Your task to perform on an android device: turn vacation reply on in the gmail app Image 0: 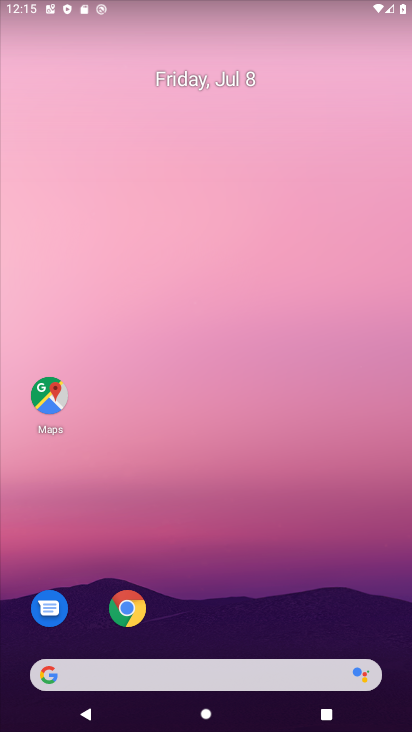
Step 0: drag from (280, 604) to (169, 59)
Your task to perform on an android device: turn vacation reply on in the gmail app Image 1: 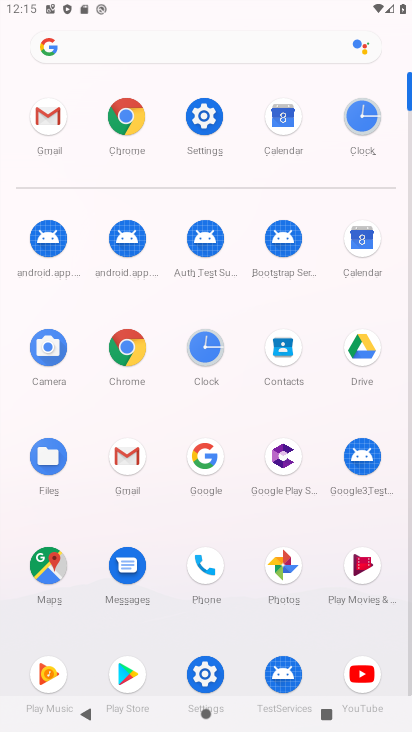
Step 1: click (40, 124)
Your task to perform on an android device: turn vacation reply on in the gmail app Image 2: 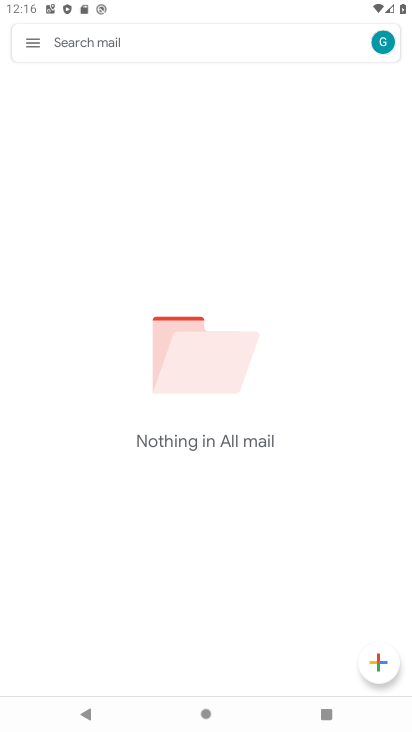
Step 2: click (40, 42)
Your task to perform on an android device: turn vacation reply on in the gmail app Image 3: 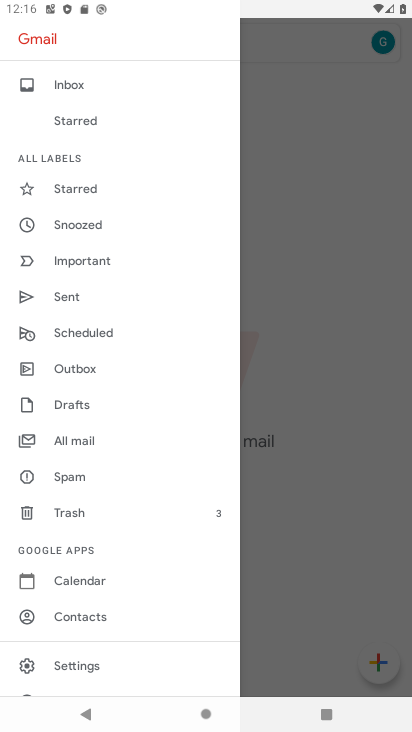
Step 3: click (80, 682)
Your task to perform on an android device: turn vacation reply on in the gmail app Image 4: 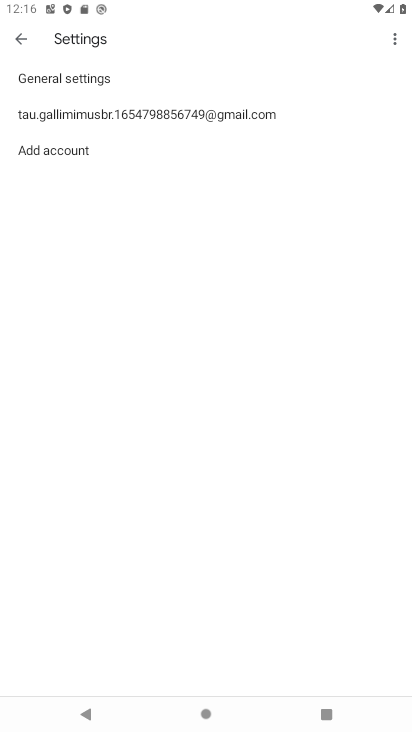
Step 4: click (146, 103)
Your task to perform on an android device: turn vacation reply on in the gmail app Image 5: 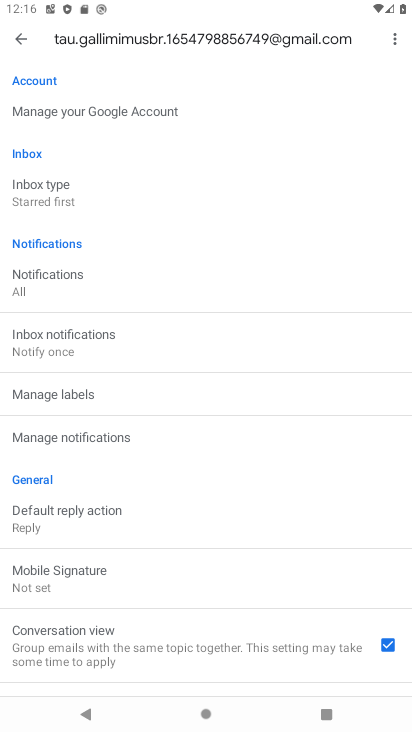
Step 5: drag from (195, 557) to (169, 234)
Your task to perform on an android device: turn vacation reply on in the gmail app Image 6: 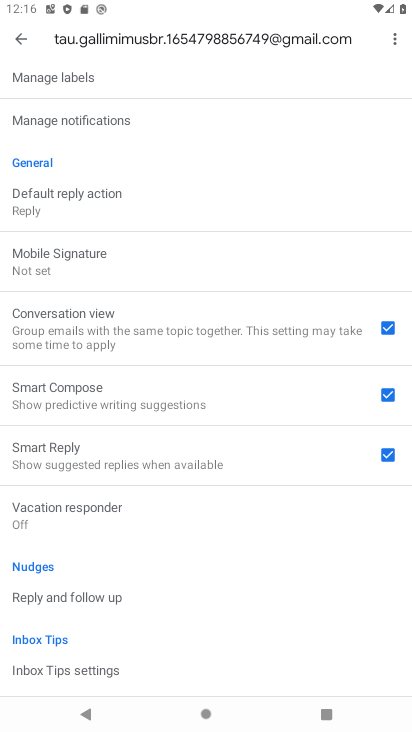
Step 6: click (98, 89)
Your task to perform on an android device: turn vacation reply on in the gmail app Image 7: 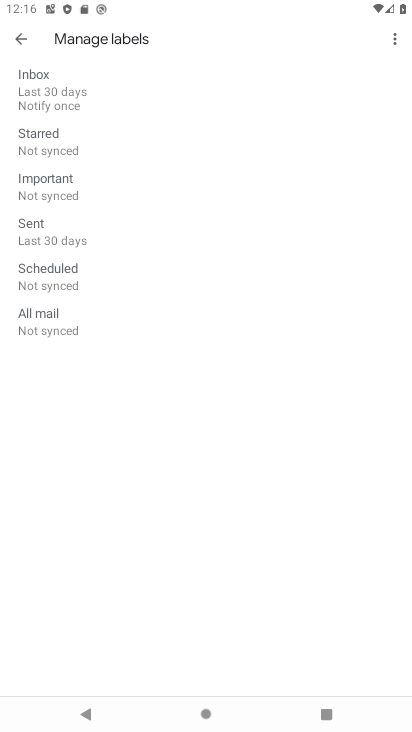
Step 7: task complete